Your task to perform on an android device: Turn off the flashlight Image 0: 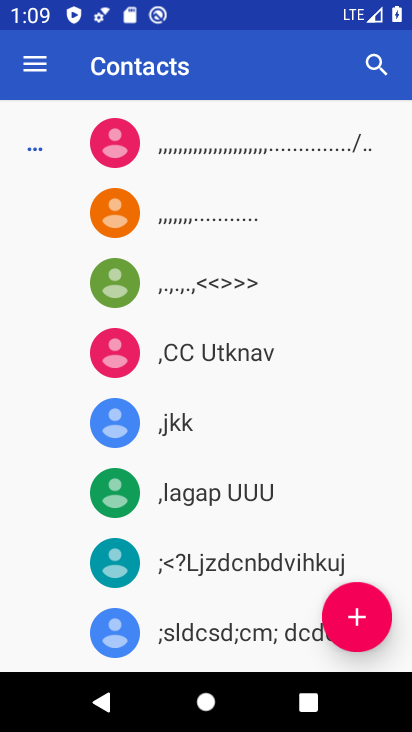
Step 0: task impossible